Your task to perform on an android device: allow cookies in the chrome app Image 0: 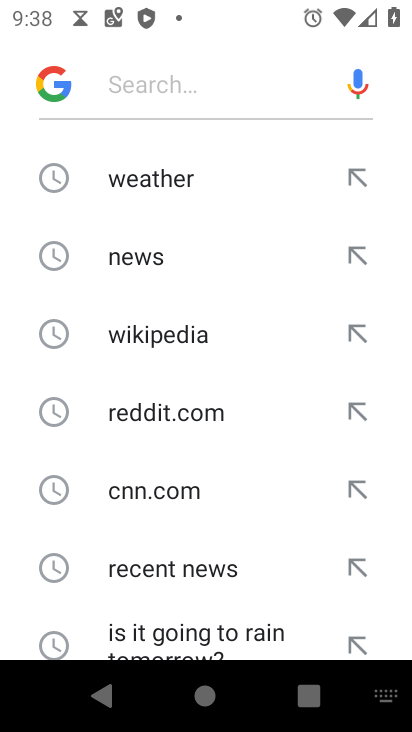
Step 0: press home button
Your task to perform on an android device: allow cookies in the chrome app Image 1: 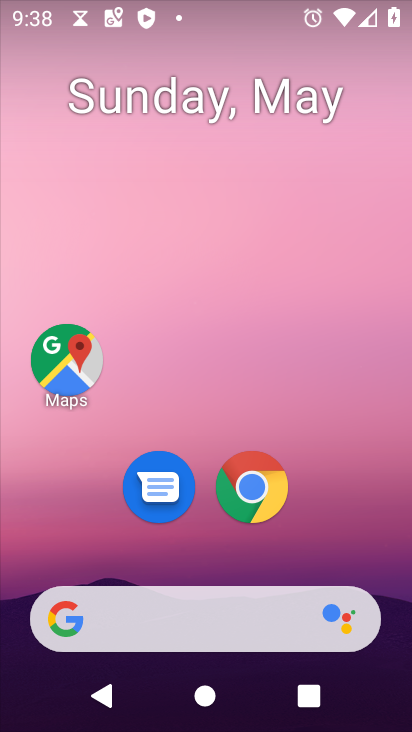
Step 1: drag from (351, 537) to (374, 42)
Your task to perform on an android device: allow cookies in the chrome app Image 2: 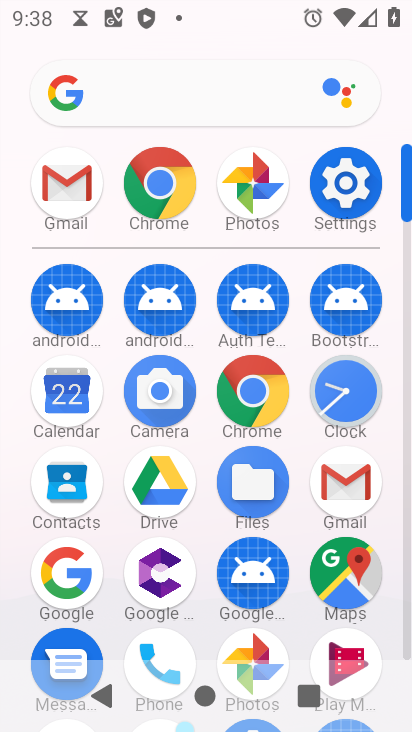
Step 2: click (160, 184)
Your task to perform on an android device: allow cookies in the chrome app Image 3: 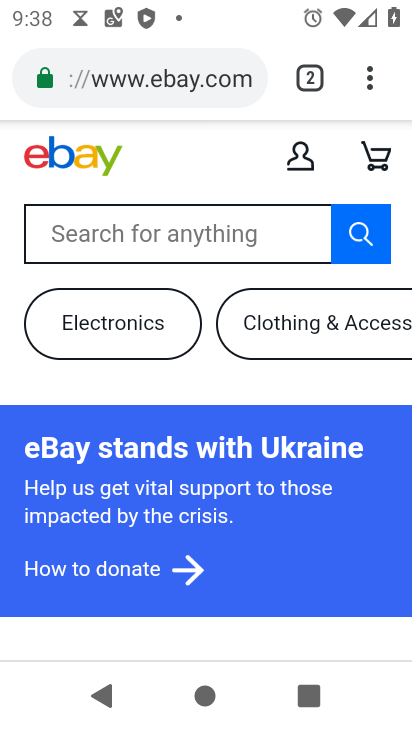
Step 3: drag from (380, 79) to (192, 560)
Your task to perform on an android device: allow cookies in the chrome app Image 4: 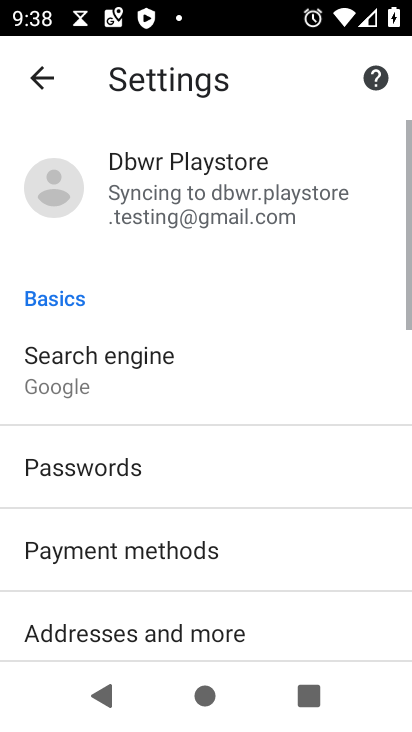
Step 4: drag from (192, 557) to (241, 161)
Your task to perform on an android device: allow cookies in the chrome app Image 5: 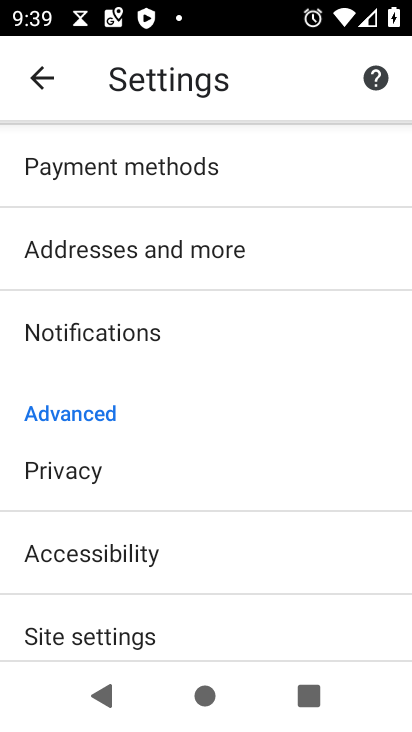
Step 5: drag from (205, 590) to (258, 183)
Your task to perform on an android device: allow cookies in the chrome app Image 6: 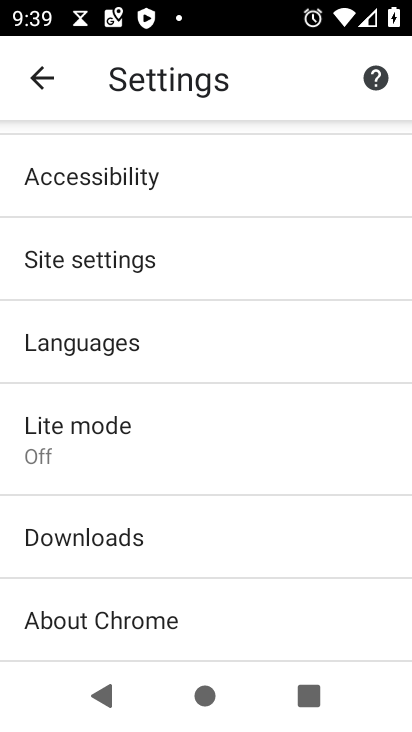
Step 6: click (219, 518)
Your task to perform on an android device: allow cookies in the chrome app Image 7: 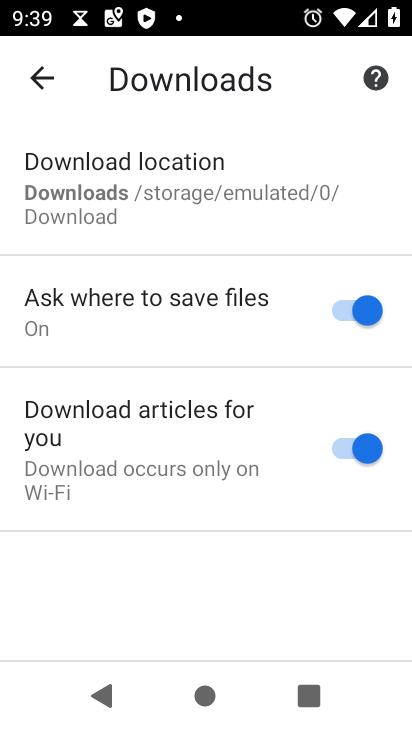
Step 7: click (57, 115)
Your task to perform on an android device: allow cookies in the chrome app Image 8: 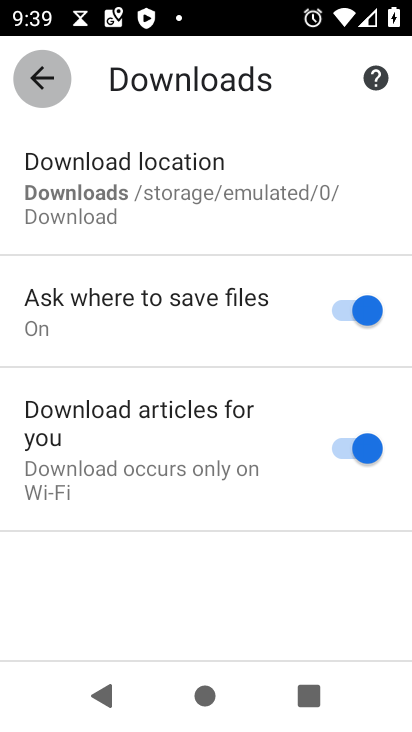
Step 8: click (55, 102)
Your task to perform on an android device: allow cookies in the chrome app Image 9: 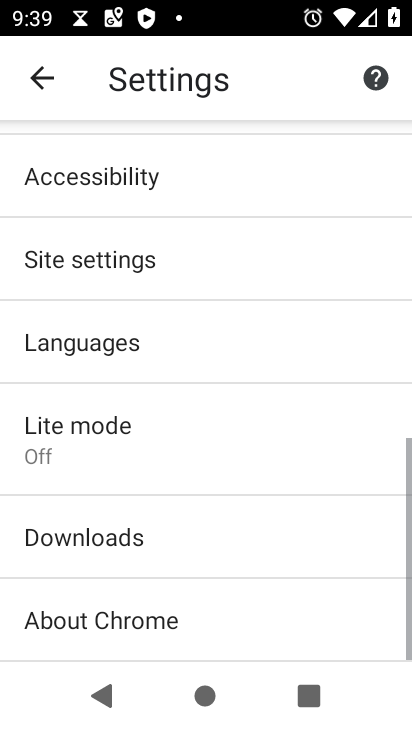
Step 9: click (98, 246)
Your task to perform on an android device: allow cookies in the chrome app Image 10: 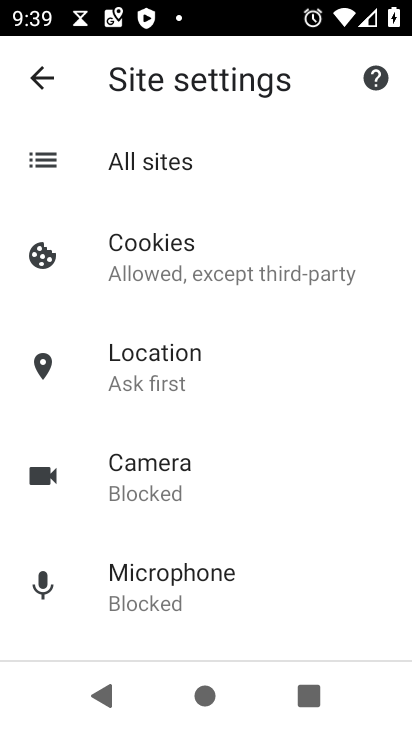
Step 10: click (136, 259)
Your task to perform on an android device: allow cookies in the chrome app Image 11: 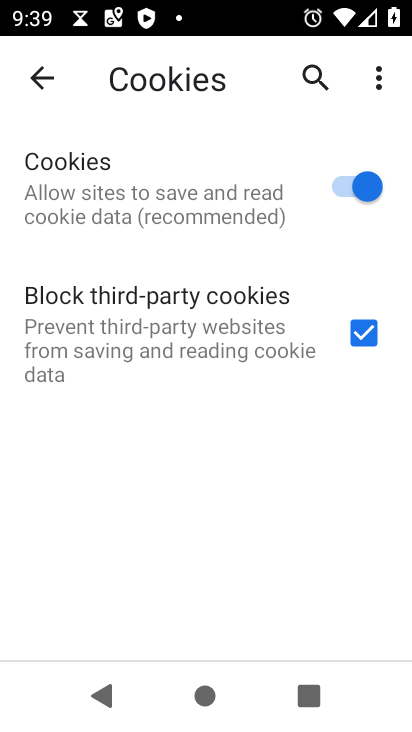
Step 11: task complete